Your task to perform on an android device: Open the calendar and show me this week's events? Image 0: 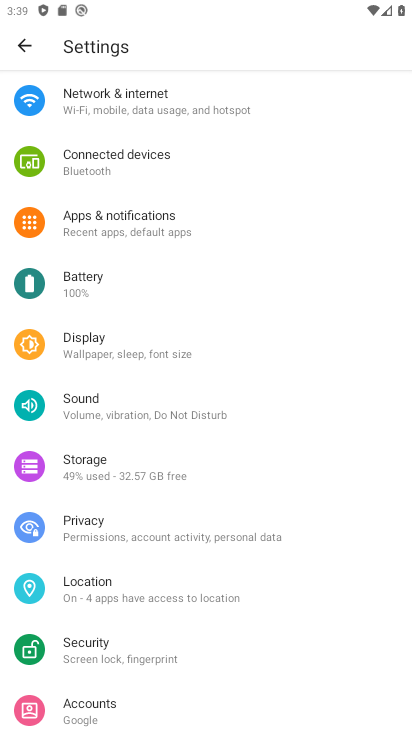
Step 0: press home button
Your task to perform on an android device: Open the calendar and show me this week's events? Image 1: 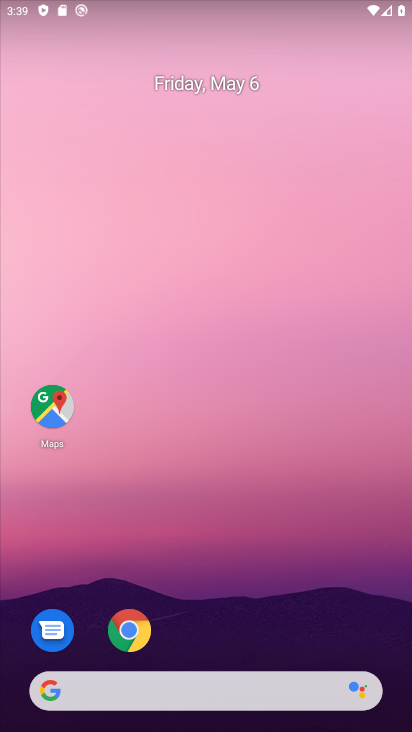
Step 1: drag from (200, 611) to (263, 25)
Your task to perform on an android device: Open the calendar and show me this week's events? Image 2: 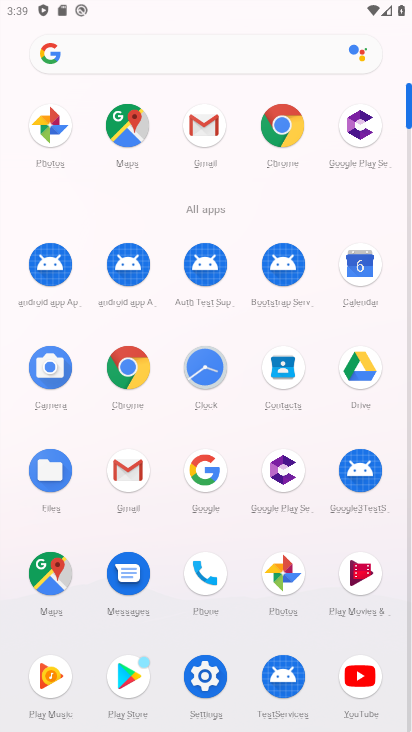
Step 2: click (358, 260)
Your task to perform on an android device: Open the calendar and show me this week's events? Image 3: 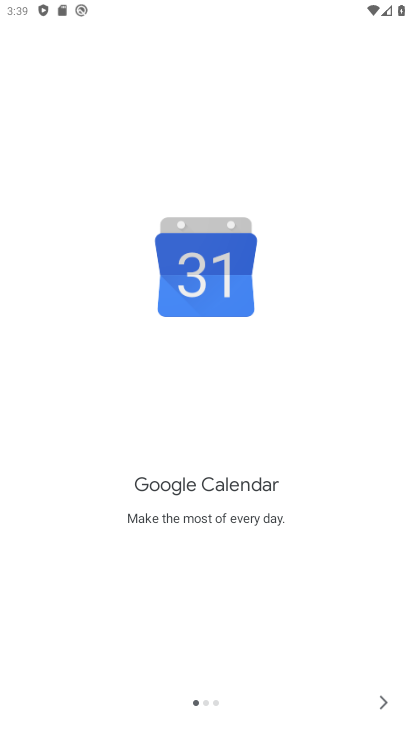
Step 3: click (382, 705)
Your task to perform on an android device: Open the calendar and show me this week's events? Image 4: 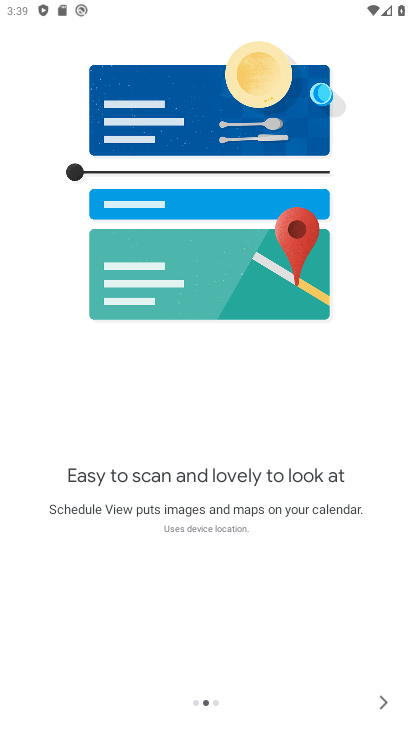
Step 4: click (372, 700)
Your task to perform on an android device: Open the calendar and show me this week's events? Image 5: 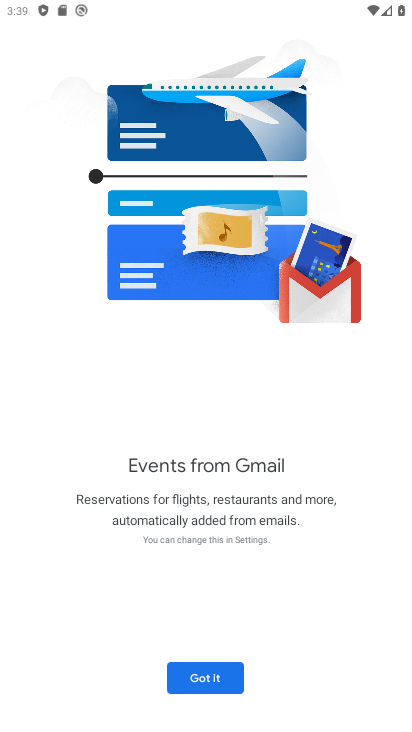
Step 5: click (230, 689)
Your task to perform on an android device: Open the calendar and show me this week's events? Image 6: 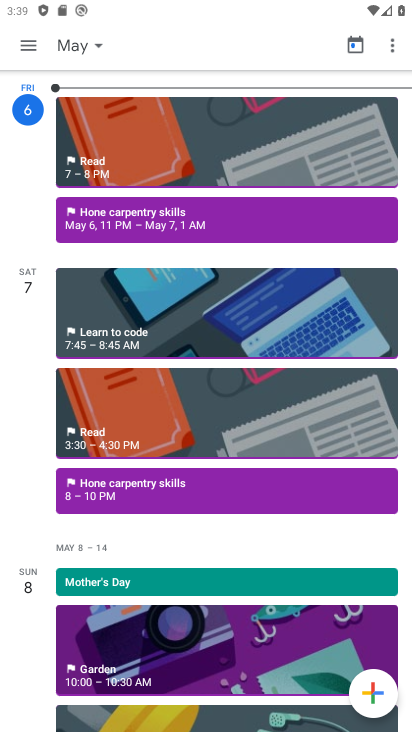
Step 6: click (103, 33)
Your task to perform on an android device: Open the calendar and show me this week's events? Image 7: 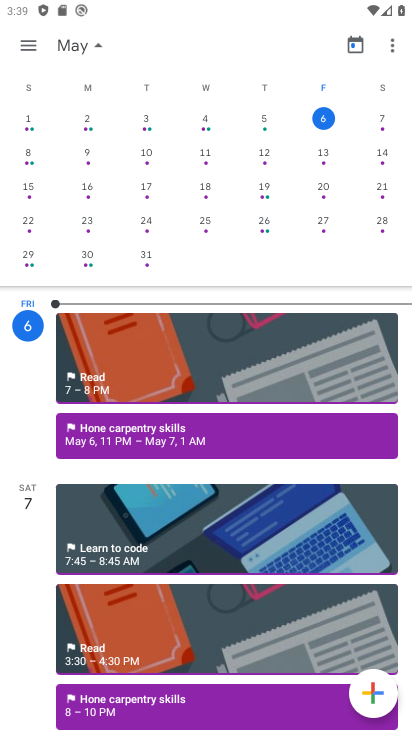
Step 7: click (323, 128)
Your task to perform on an android device: Open the calendar and show me this week's events? Image 8: 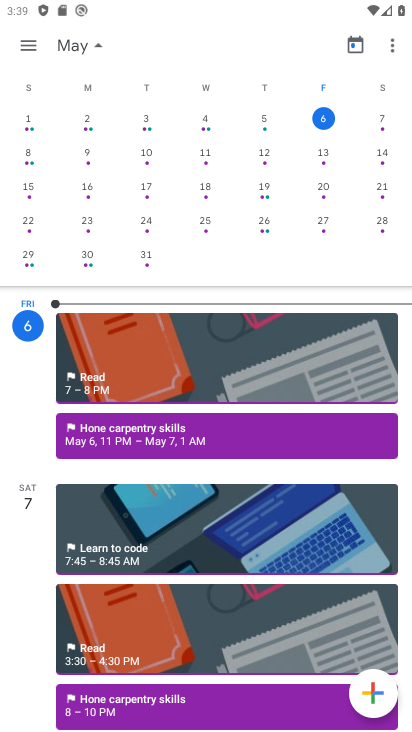
Step 8: drag from (200, 599) to (260, 178)
Your task to perform on an android device: Open the calendar and show me this week's events? Image 9: 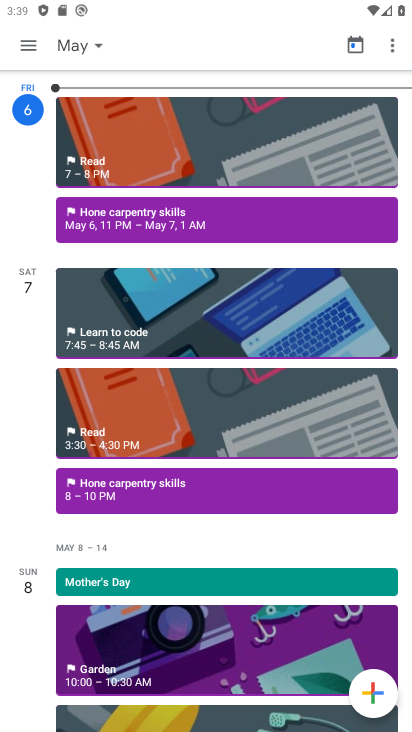
Step 9: click (233, 656)
Your task to perform on an android device: Open the calendar and show me this week's events? Image 10: 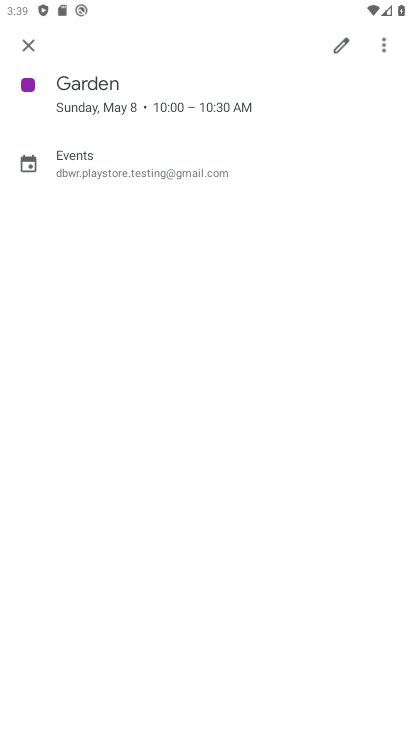
Step 10: task complete